Your task to perform on an android device: Go to Android settings Image 0: 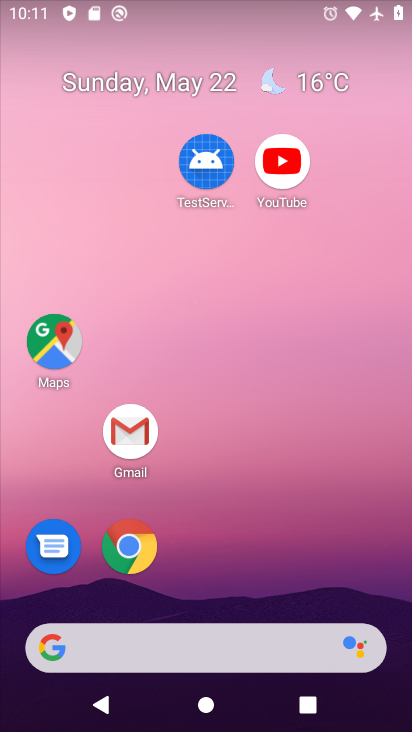
Step 0: click (320, 64)
Your task to perform on an android device: Go to Android settings Image 1: 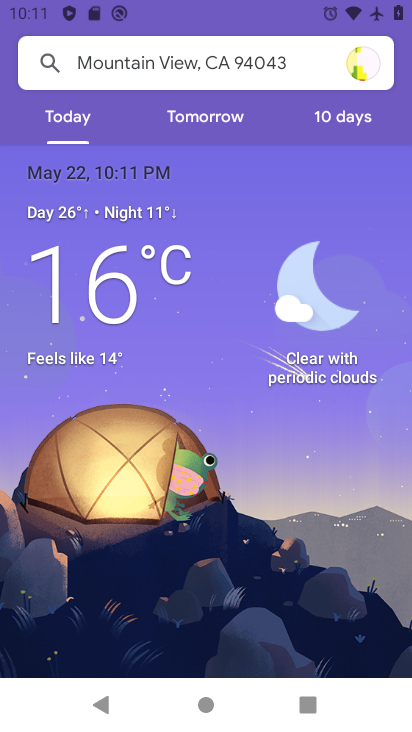
Step 1: press home button
Your task to perform on an android device: Go to Android settings Image 2: 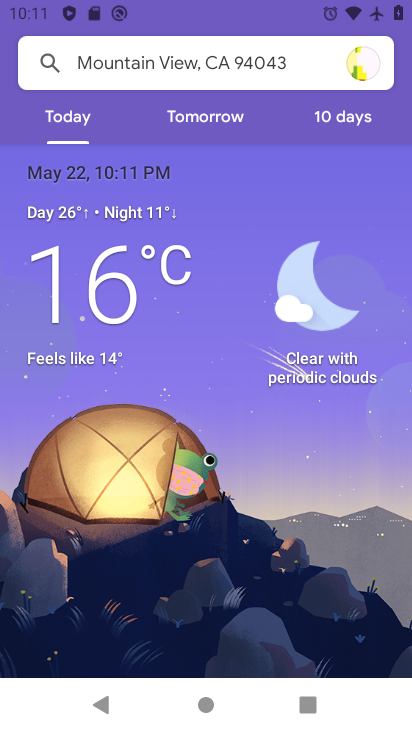
Step 2: press home button
Your task to perform on an android device: Go to Android settings Image 3: 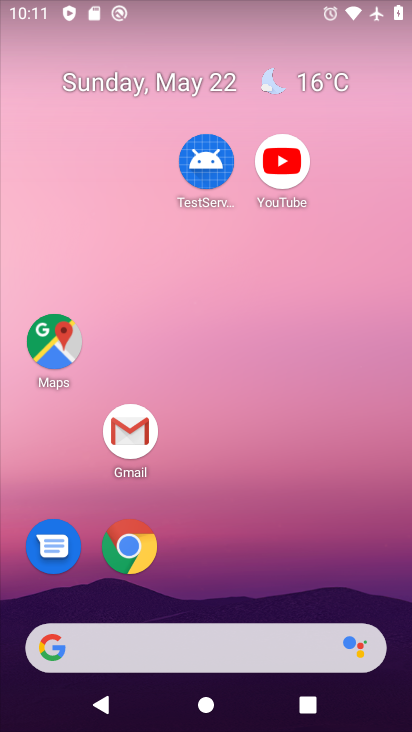
Step 3: drag from (290, 708) to (208, 56)
Your task to perform on an android device: Go to Android settings Image 4: 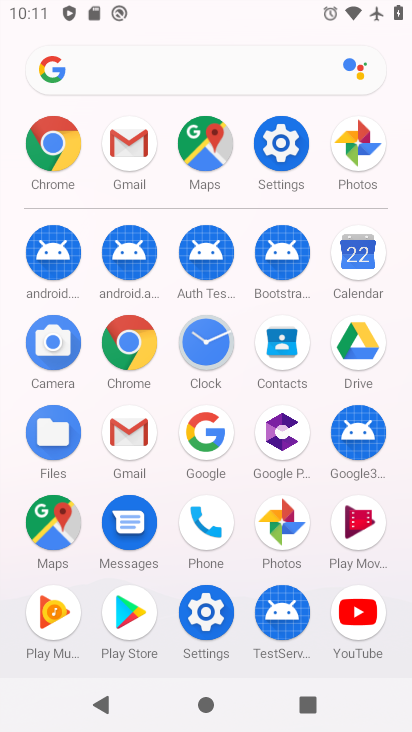
Step 4: click (277, 156)
Your task to perform on an android device: Go to Android settings Image 5: 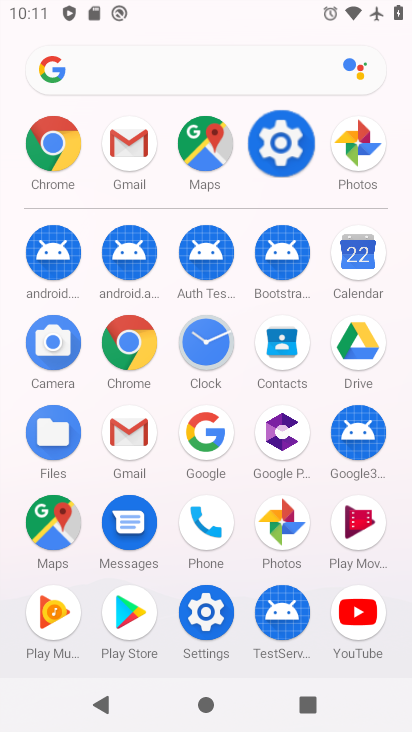
Step 5: click (281, 154)
Your task to perform on an android device: Go to Android settings Image 6: 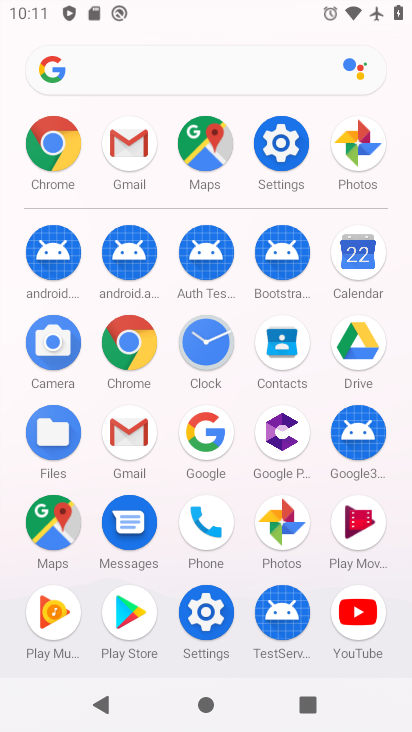
Step 6: click (284, 150)
Your task to perform on an android device: Go to Android settings Image 7: 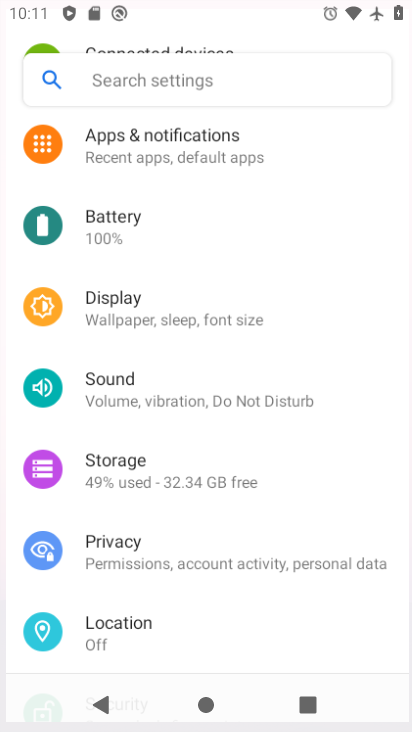
Step 7: click (289, 146)
Your task to perform on an android device: Go to Android settings Image 8: 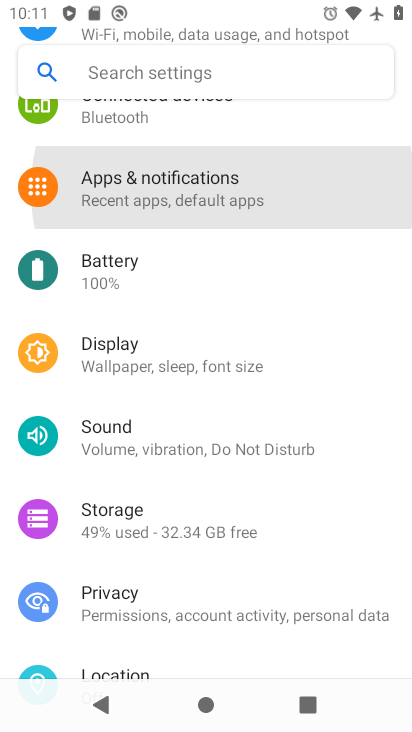
Step 8: click (289, 146)
Your task to perform on an android device: Go to Android settings Image 9: 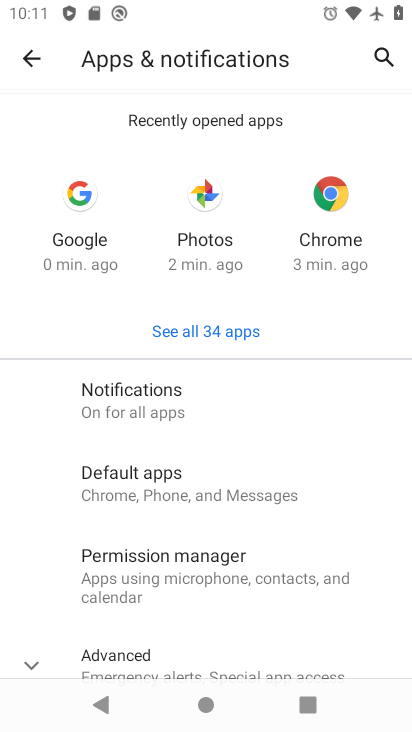
Step 9: click (20, 54)
Your task to perform on an android device: Go to Android settings Image 10: 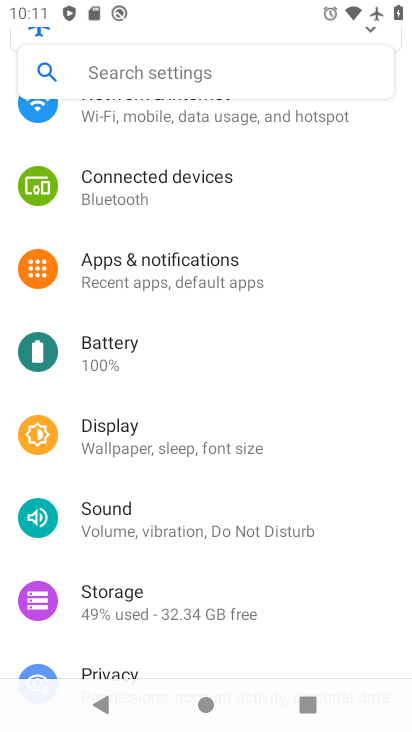
Step 10: click (22, 58)
Your task to perform on an android device: Go to Android settings Image 11: 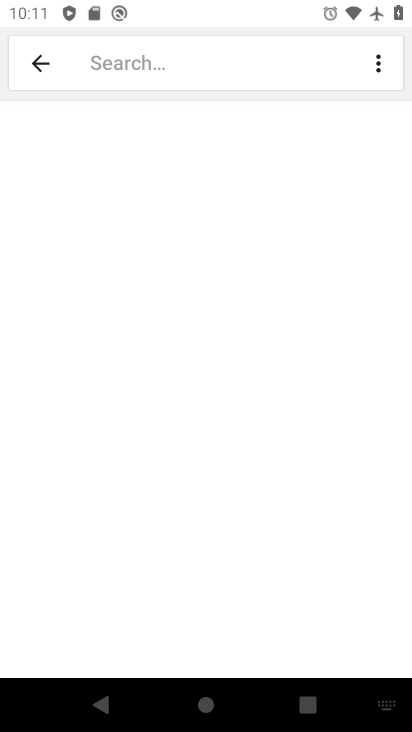
Step 11: click (37, 57)
Your task to perform on an android device: Go to Android settings Image 12: 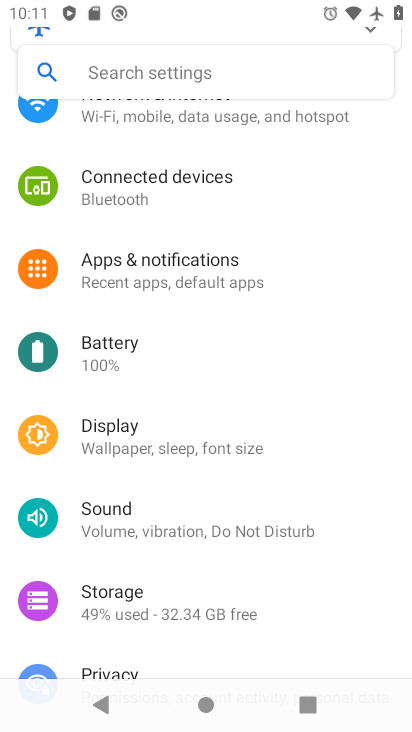
Step 12: drag from (187, 545) to (147, 97)
Your task to perform on an android device: Go to Android settings Image 13: 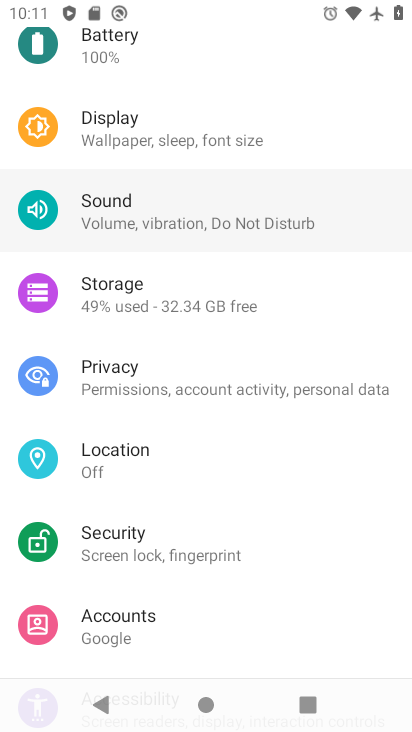
Step 13: drag from (183, 397) to (182, 75)
Your task to perform on an android device: Go to Android settings Image 14: 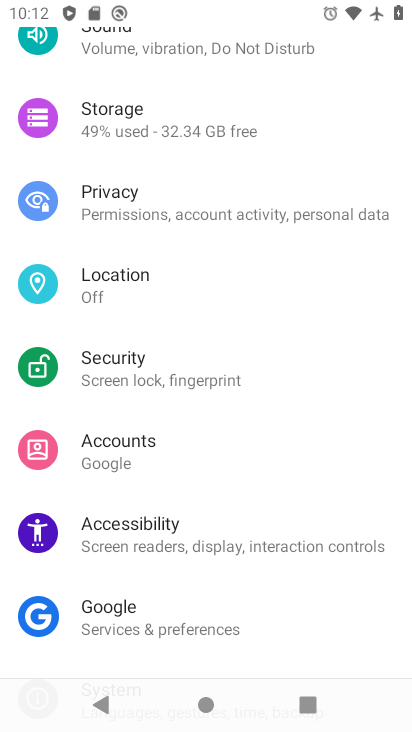
Step 14: drag from (203, 503) to (192, 143)
Your task to perform on an android device: Go to Android settings Image 15: 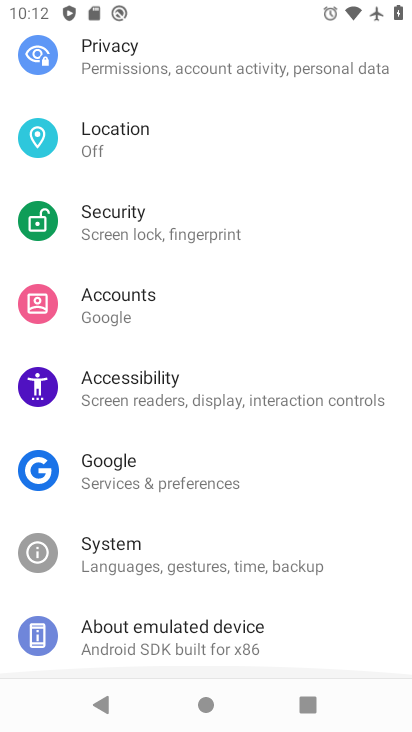
Step 15: drag from (201, 573) to (187, 261)
Your task to perform on an android device: Go to Android settings Image 16: 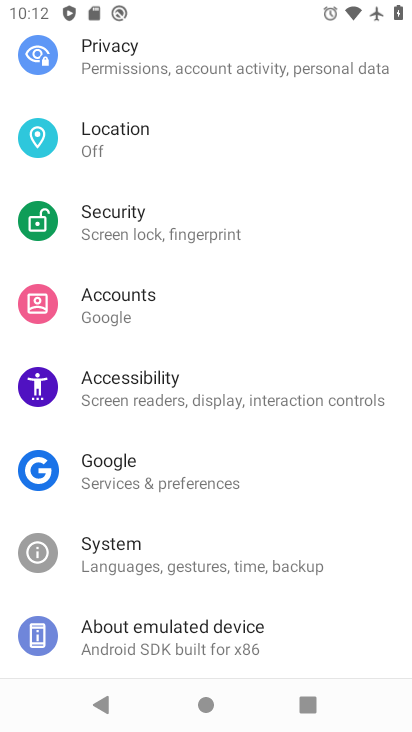
Step 16: click (164, 636)
Your task to perform on an android device: Go to Android settings Image 17: 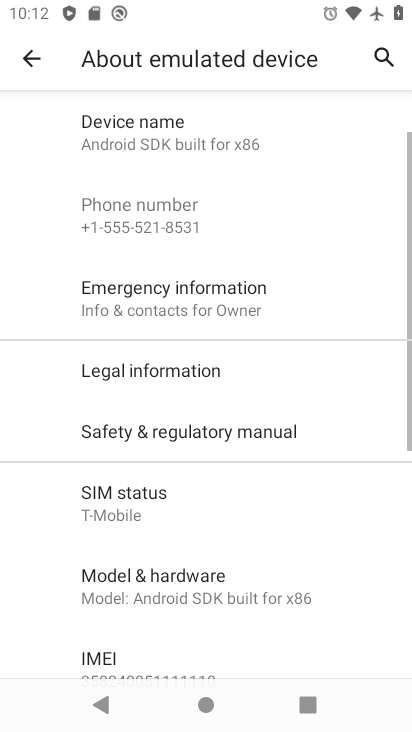
Step 17: task complete